Your task to perform on an android device: check storage Image 0: 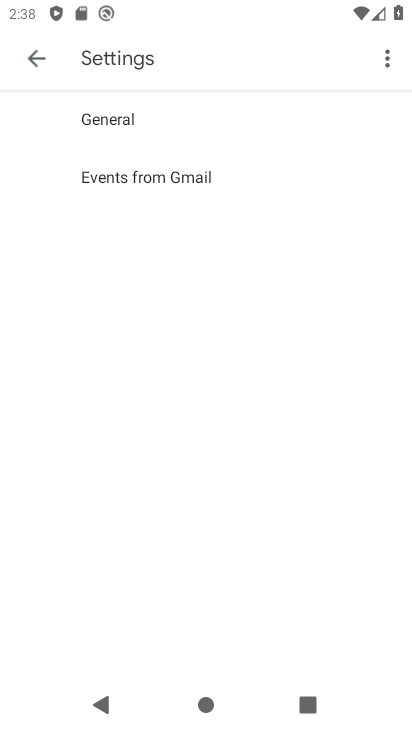
Step 0: press home button
Your task to perform on an android device: check storage Image 1: 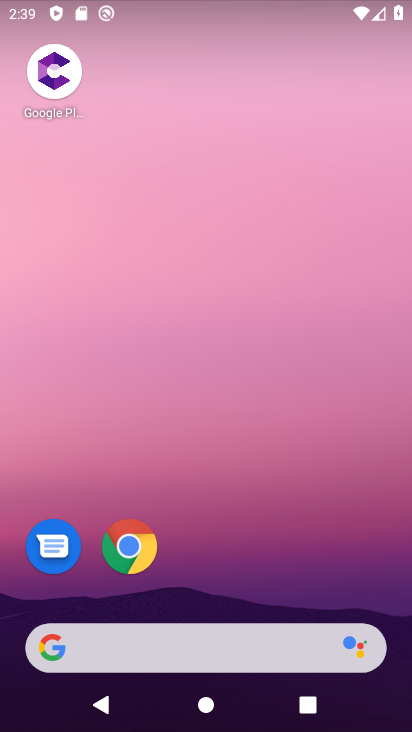
Step 1: drag from (177, 597) to (267, 143)
Your task to perform on an android device: check storage Image 2: 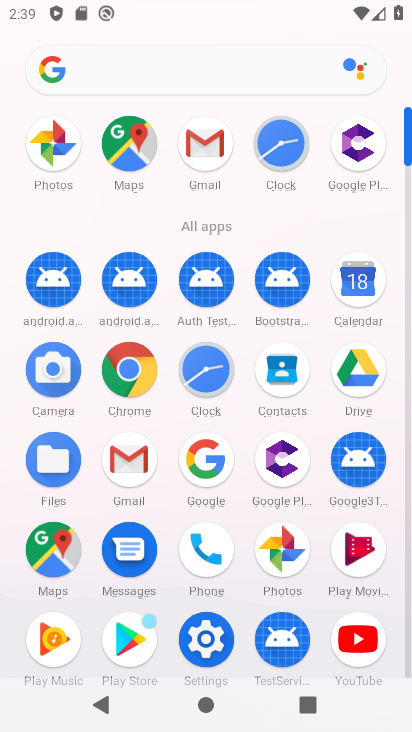
Step 2: click (213, 643)
Your task to perform on an android device: check storage Image 3: 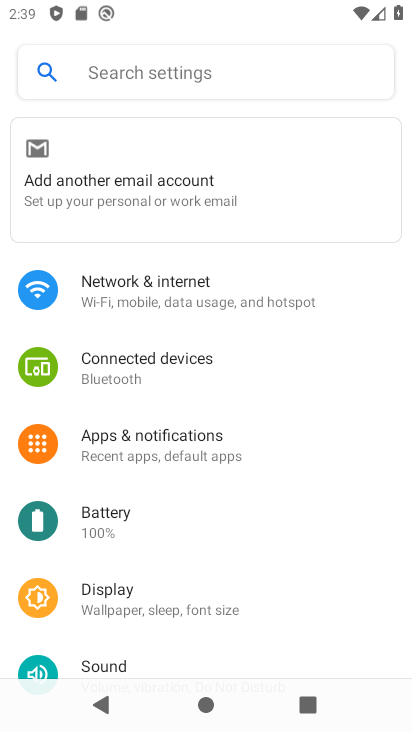
Step 3: drag from (134, 629) to (256, 204)
Your task to perform on an android device: check storage Image 4: 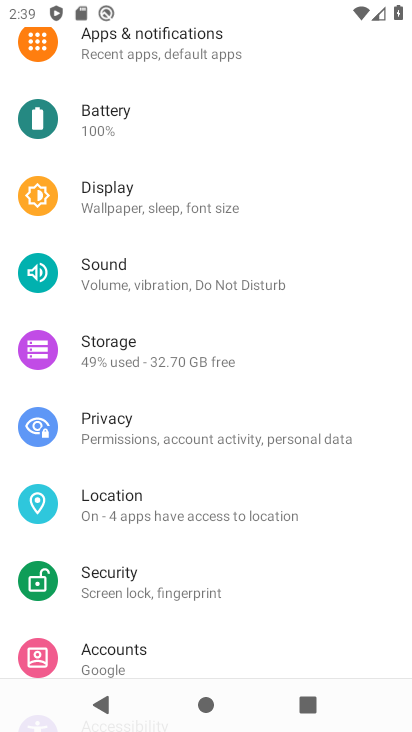
Step 4: click (194, 365)
Your task to perform on an android device: check storage Image 5: 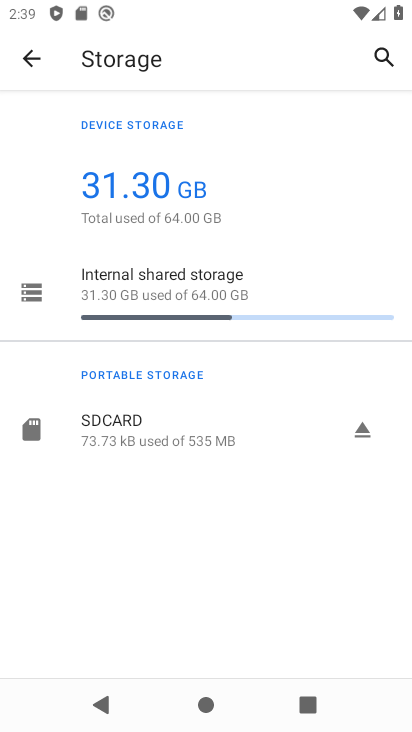
Step 5: task complete